Your task to perform on an android device: See recent photos Image 0: 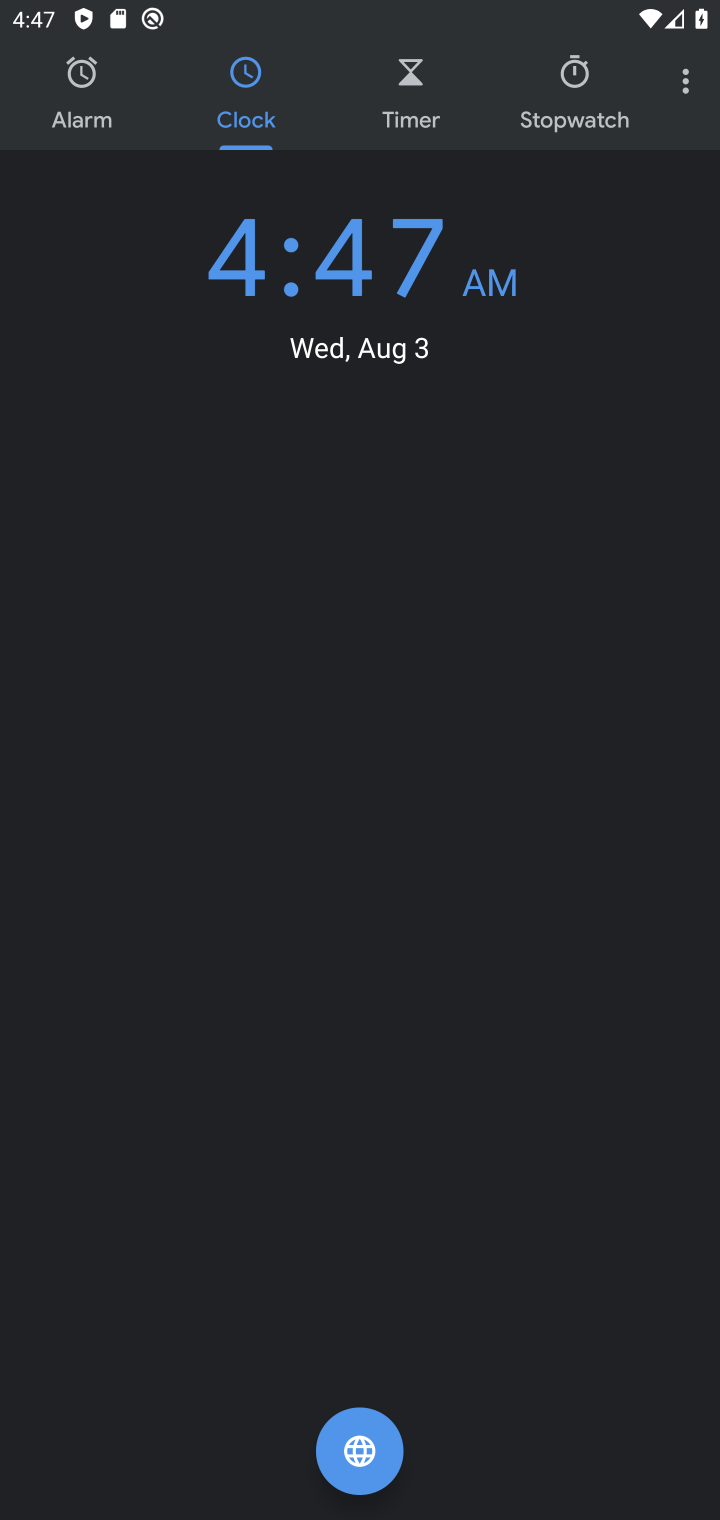
Step 0: press back button
Your task to perform on an android device: See recent photos Image 1: 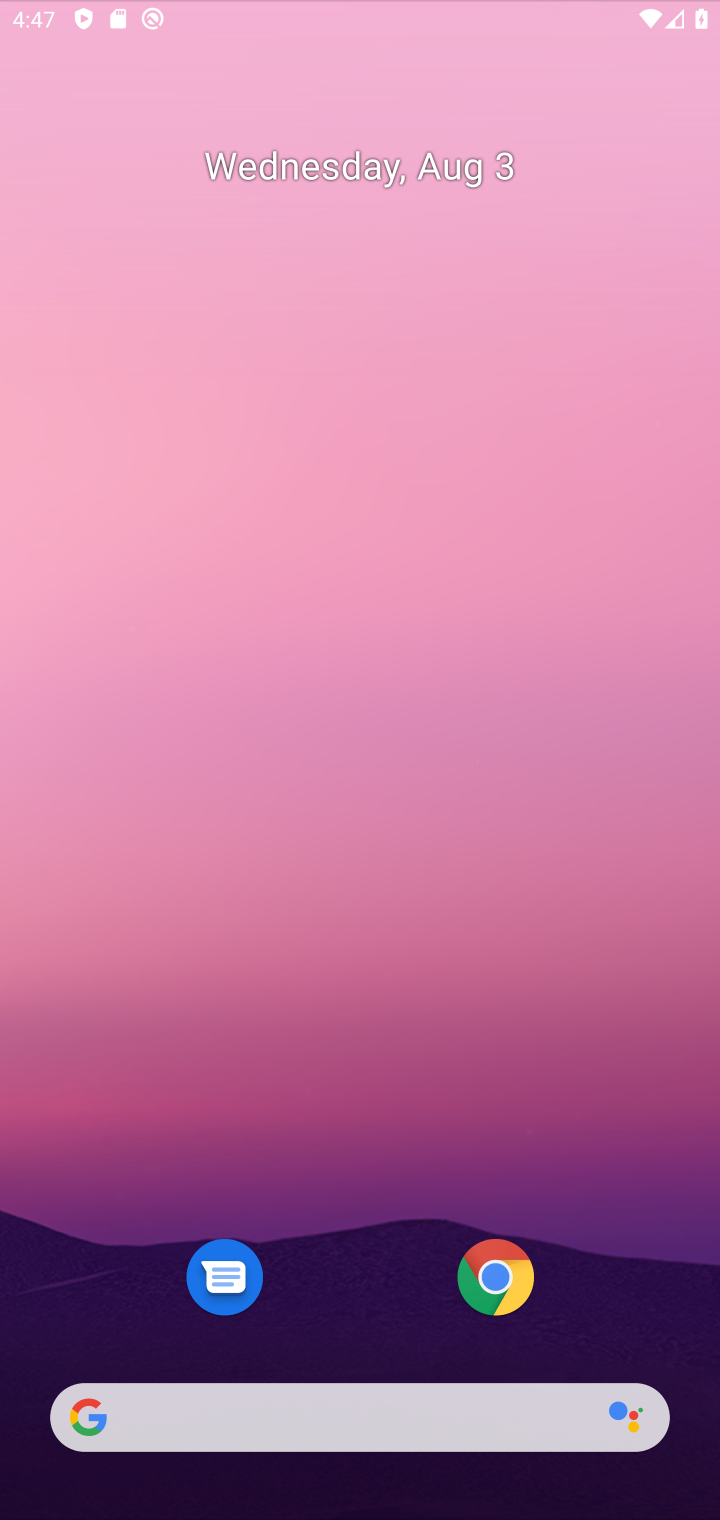
Step 1: press back button
Your task to perform on an android device: See recent photos Image 2: 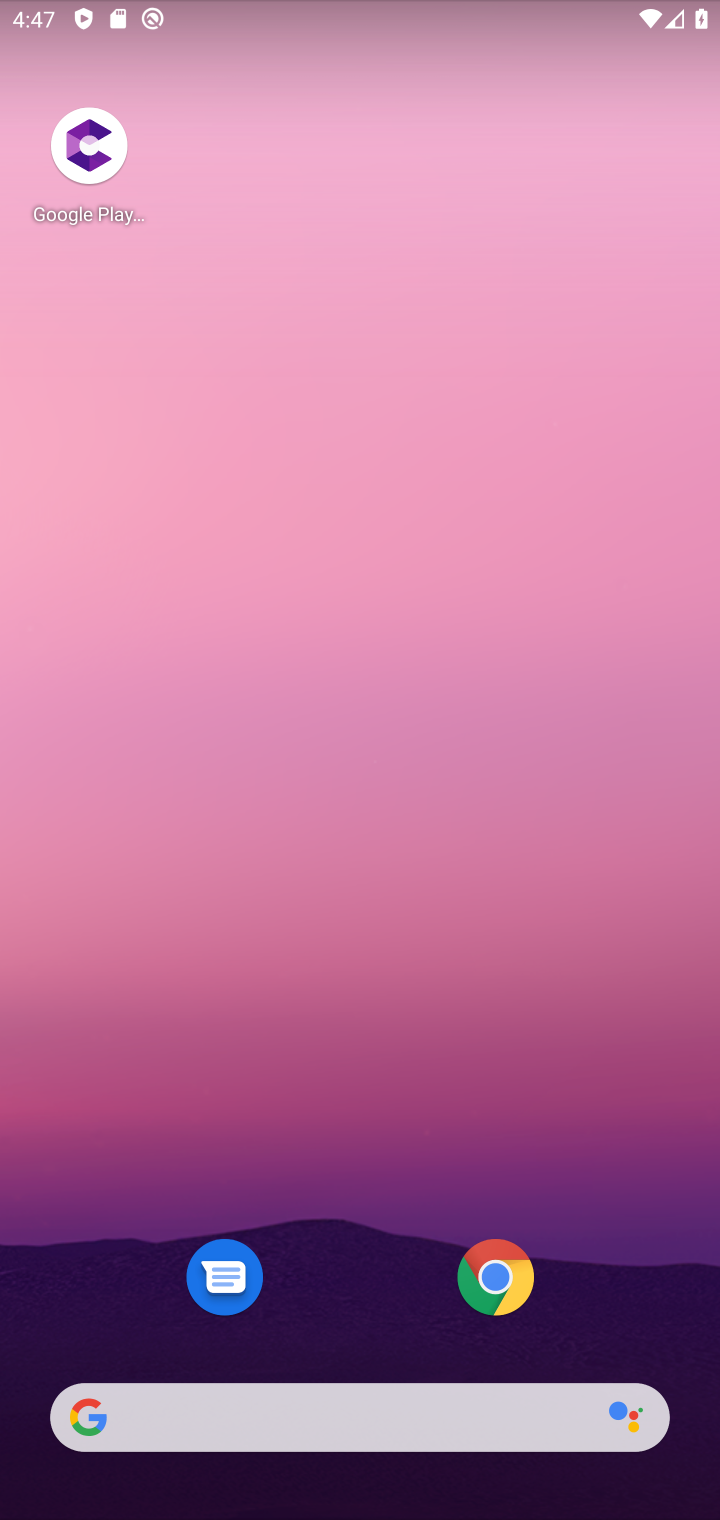
Step 2: click (316, 101)
Your task to perform on an android device: See recent photos Image 3: 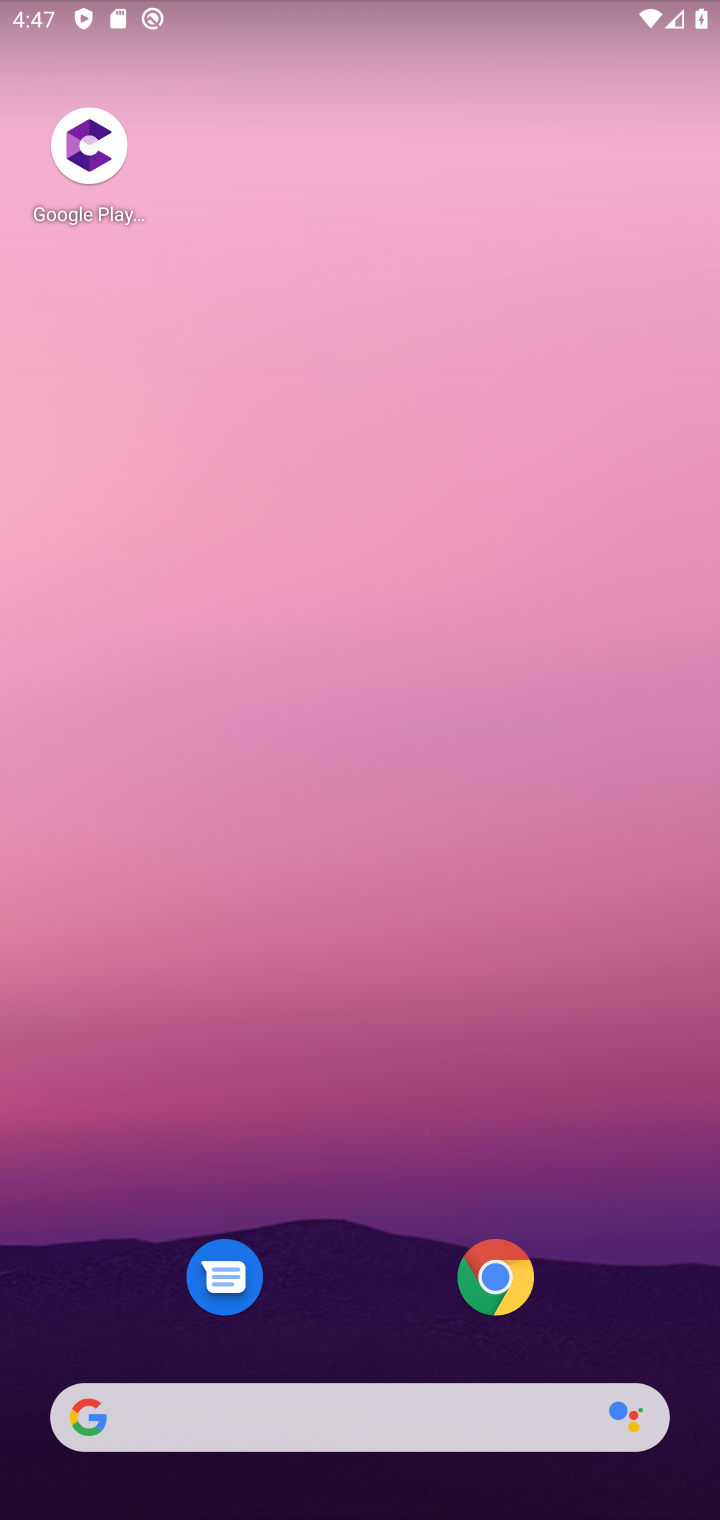
Step 3: drag from (370, 1036) to (427, 221)
Your task to perform on an android device: See recent photos Image 4: 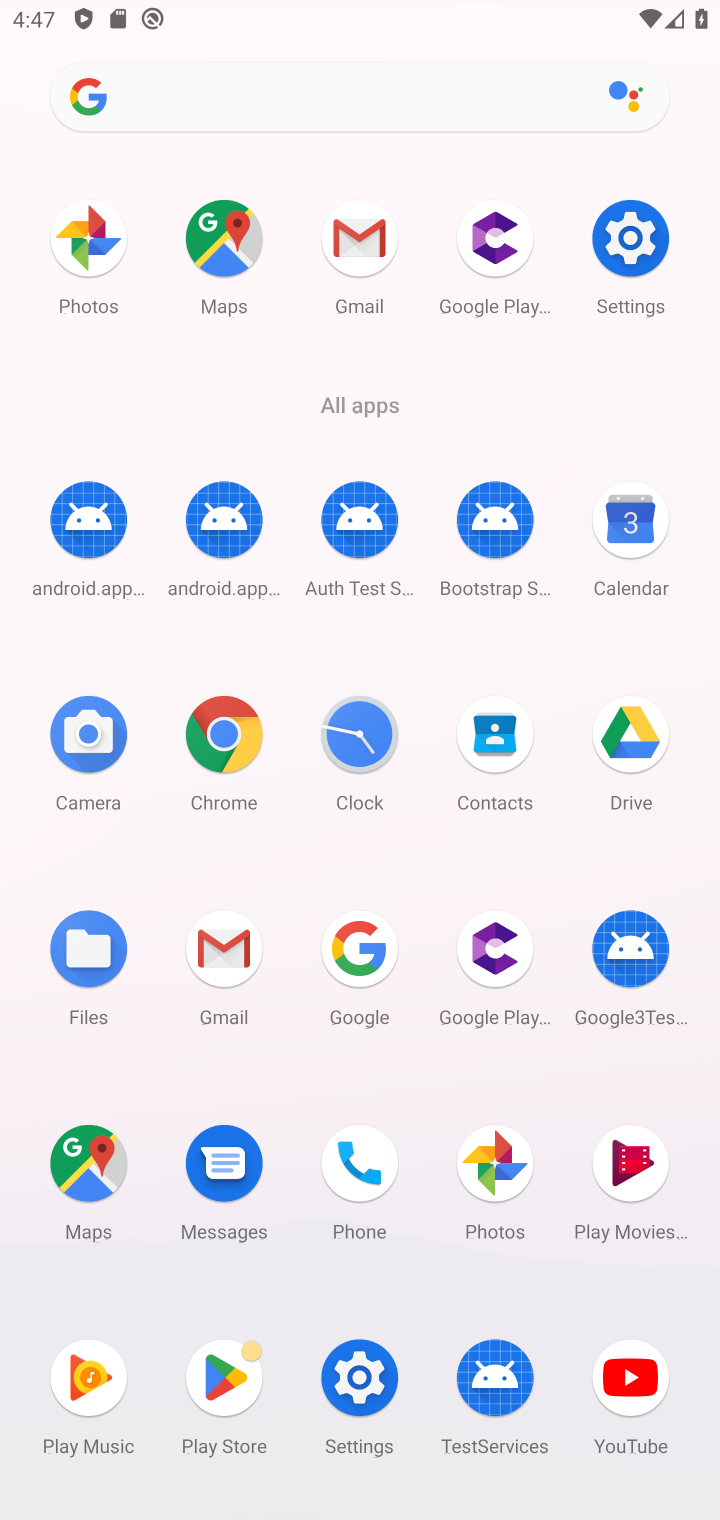
Step 4: click (487, 1160)
Your task to perform on an android device: See recent photos Image 5: 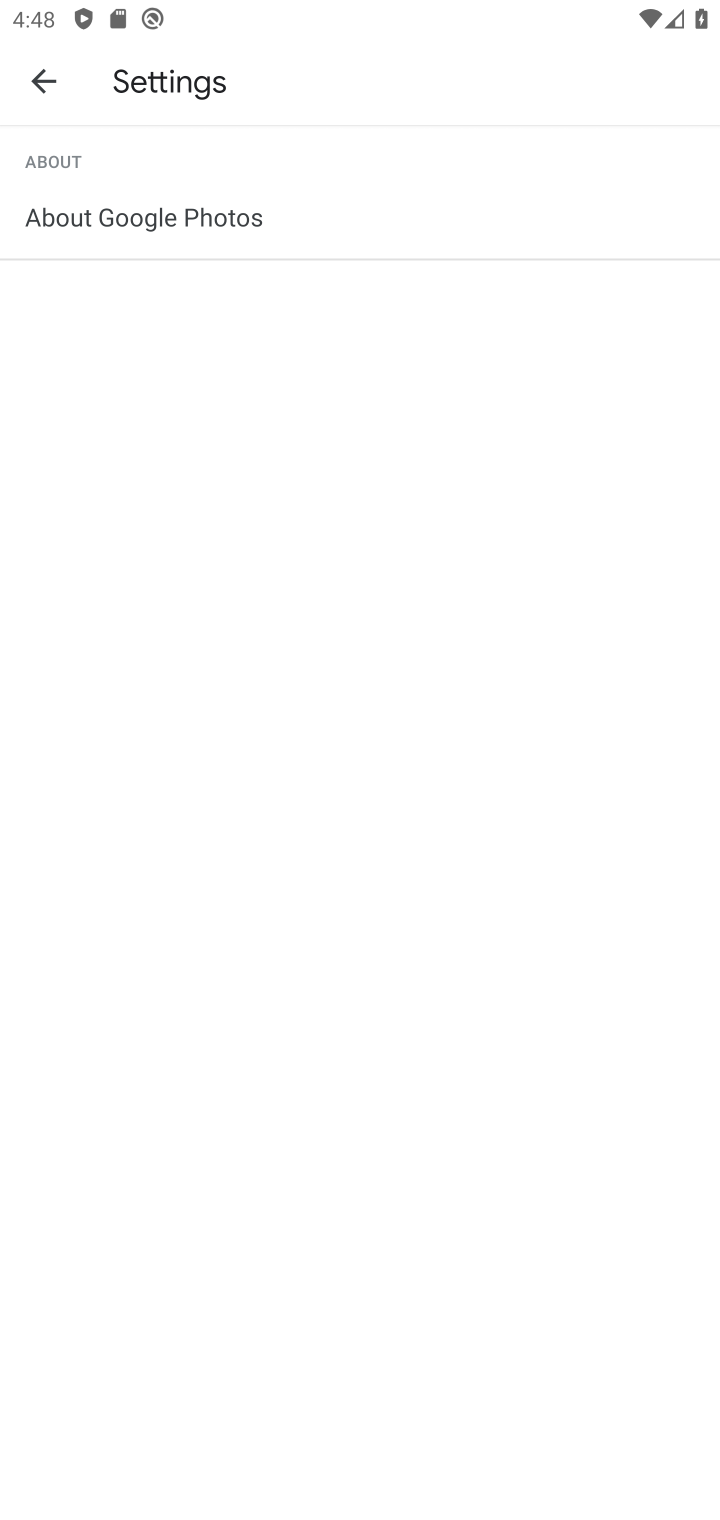
Step 5: click (40, 66)
Your task to perform on an android device: See recent photos Image 6: 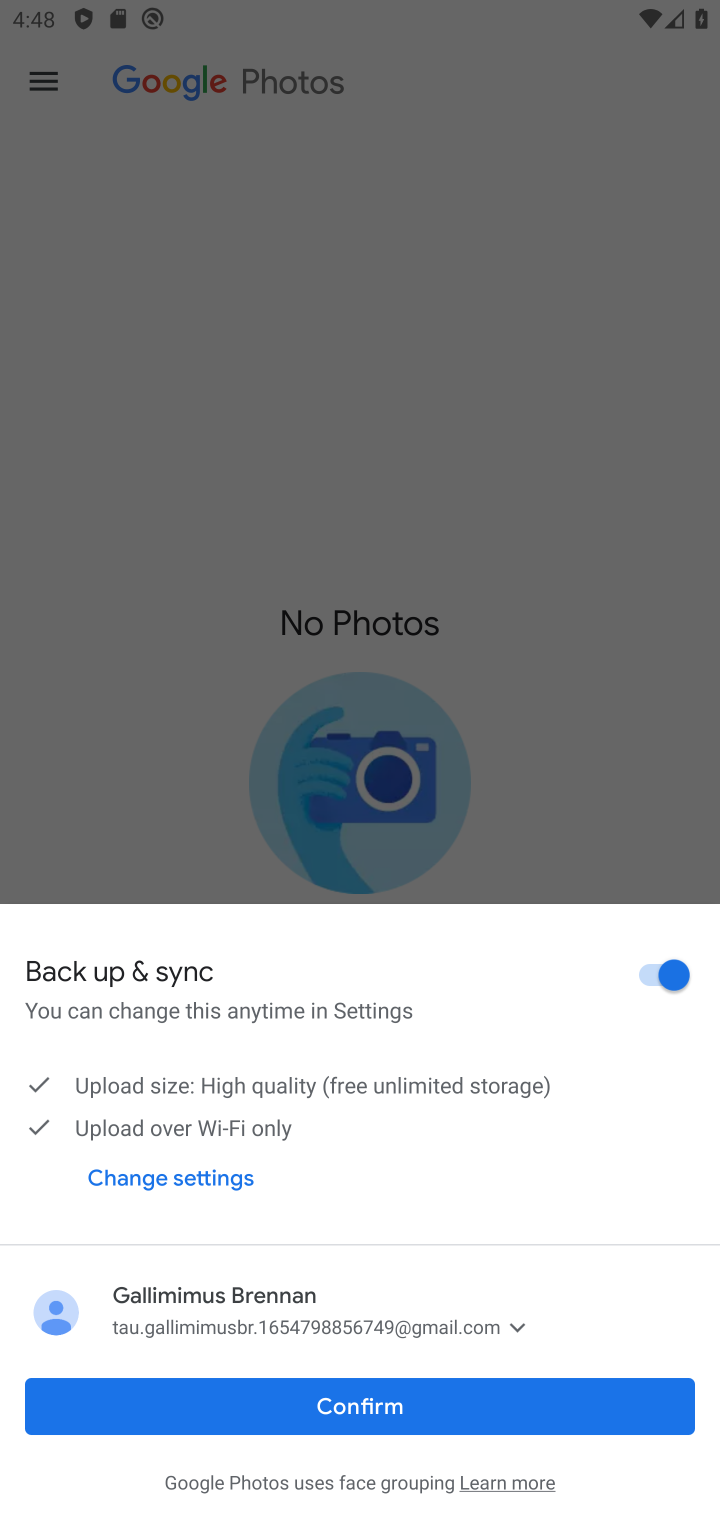
Step 6: click (349, 1396)
Your task to perform on an android device: See recent photos Image 7: 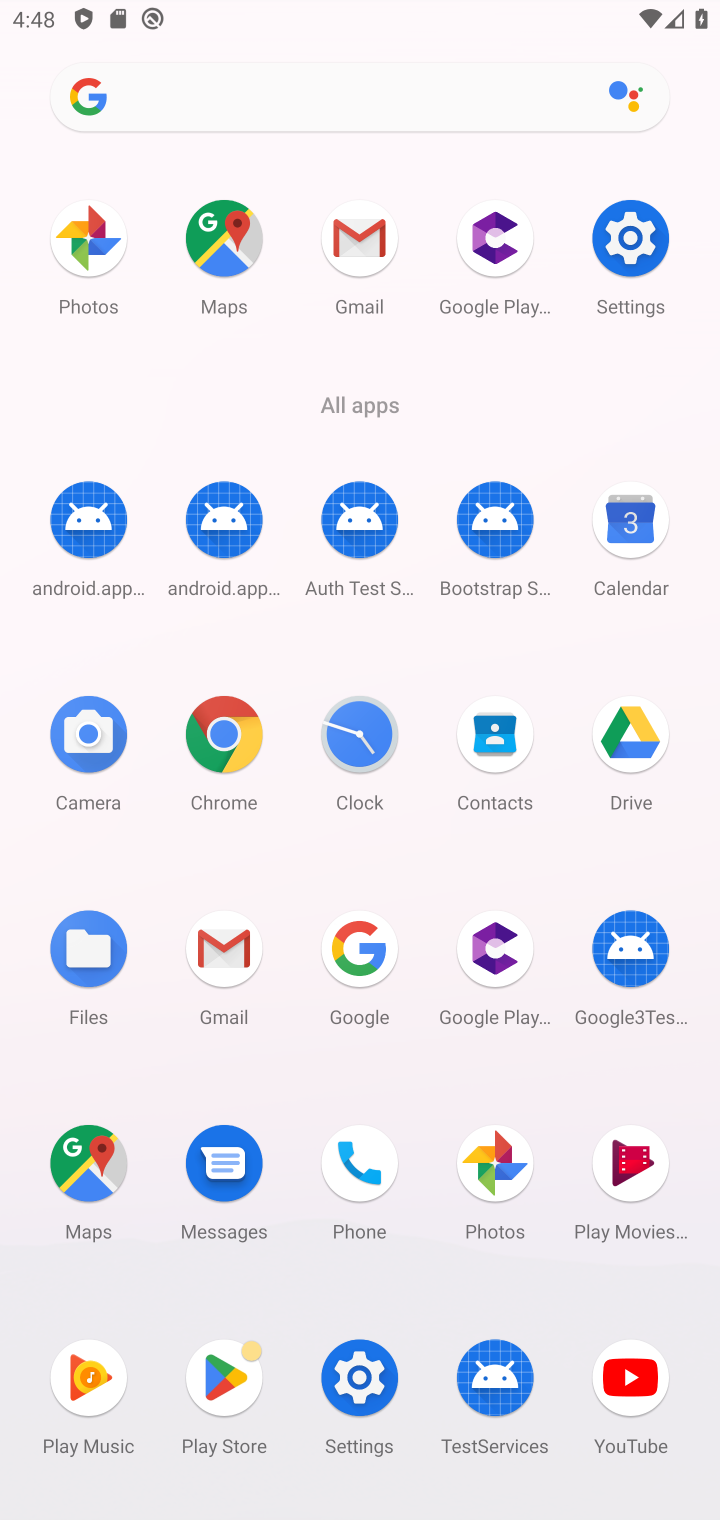
Step 7: click (71, 236)
Your task to perform on an android device: See recent photos Image 8: 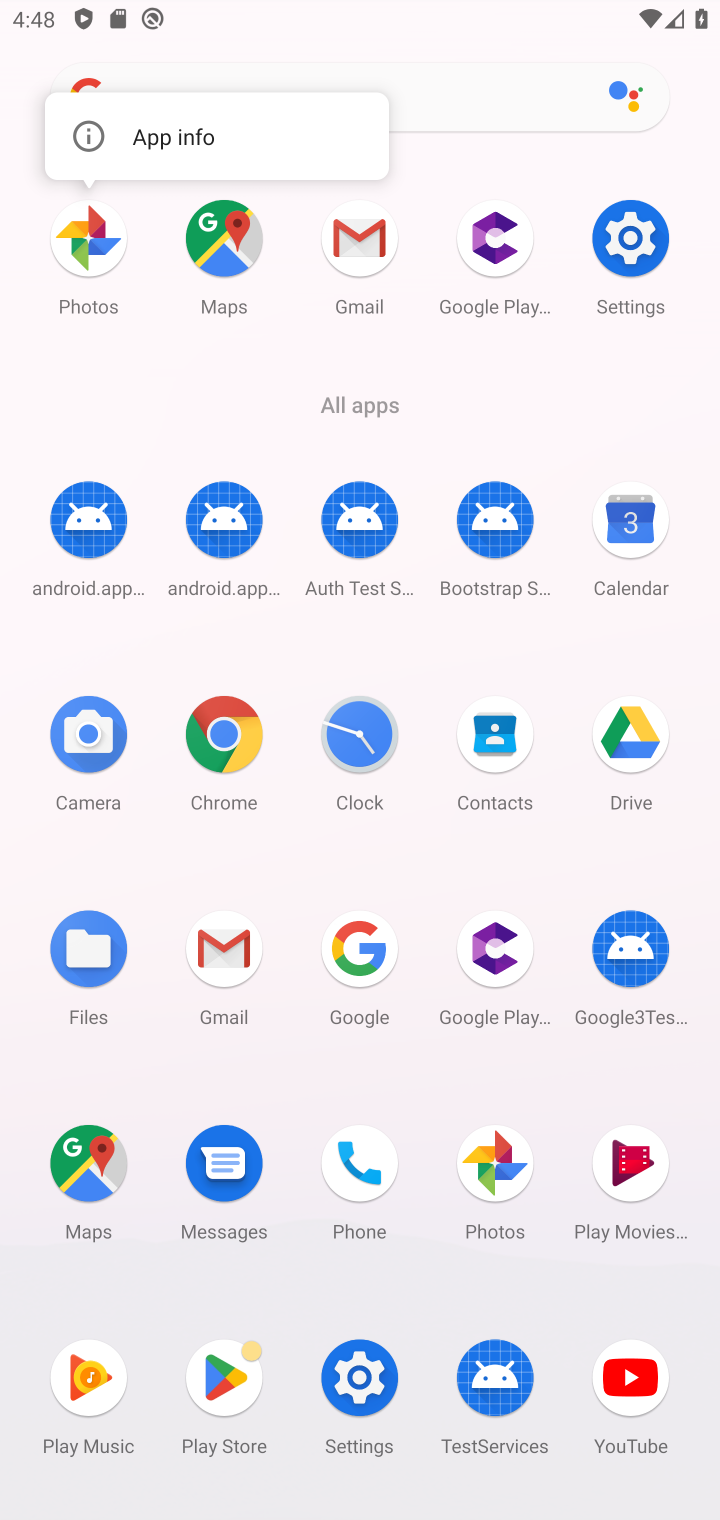
Step 8: click (80, 256)
Your task to perform on an android device: See recent photos Image 9: 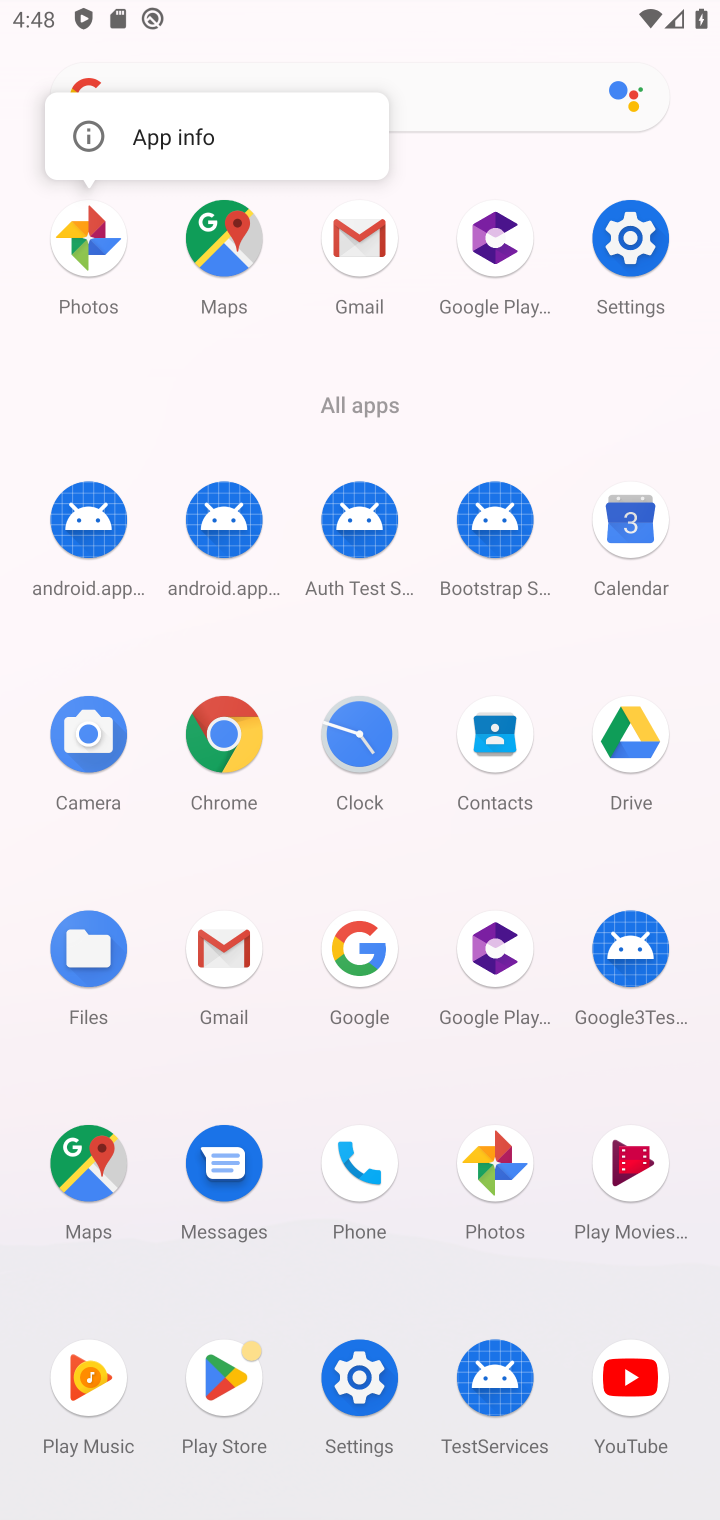
Step 9: click (80, 249)
Your task to perform on an android device: See recent photos Image 10: 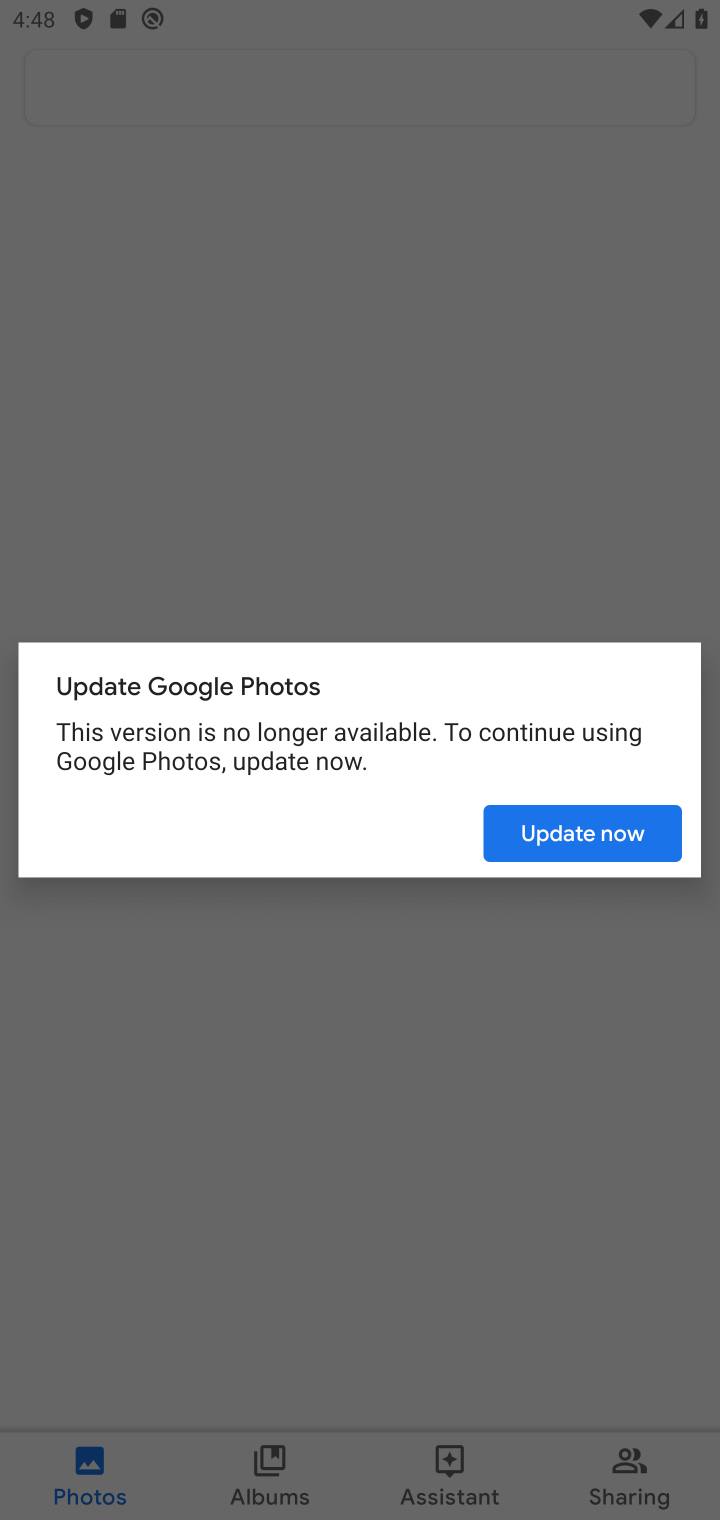
Step 10: click (86, 1489)
Your task to perform on an android device: See recent photos Image 11: 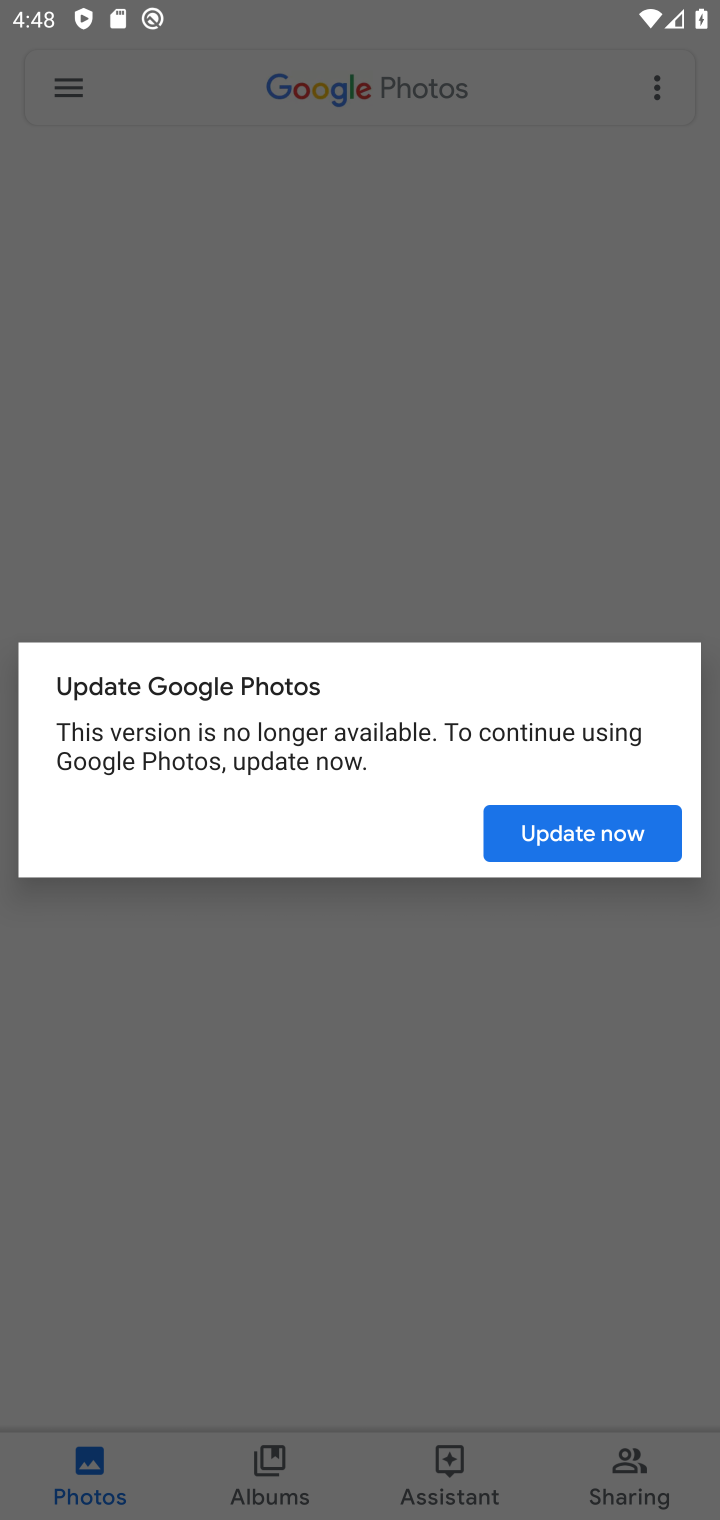
Step 11: task complete